Your task to perform on an android device: What is the recent news? Image 0: 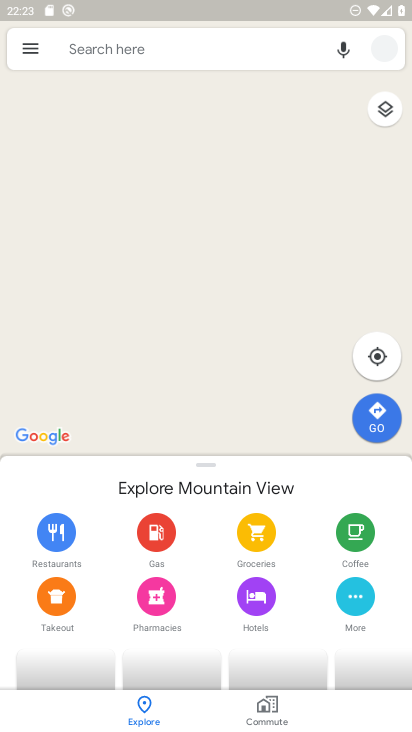
Step 0: press home button
Your task to perform on an android device: What is the recent news? Image 1: 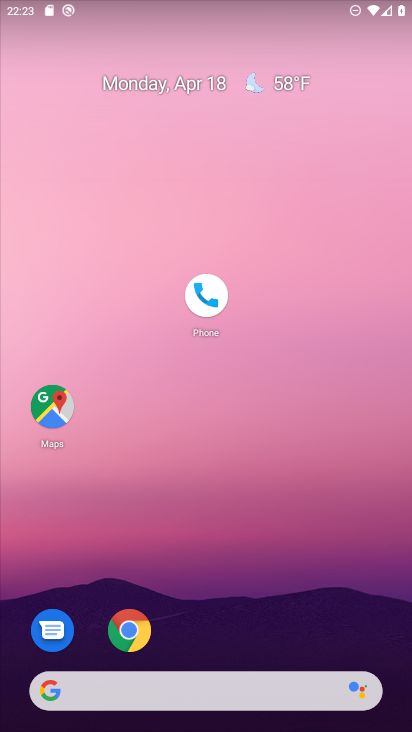
Step 1: drag from (253, 611) to (268, 140)
Your task to perform on an android device: What is the recent news? Image 2: 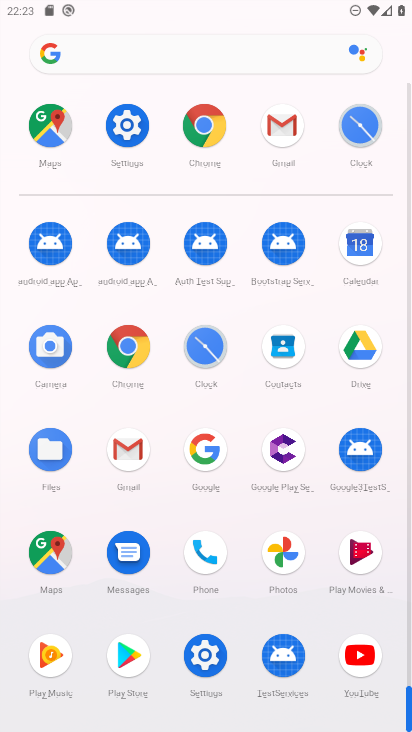
Step 2: click (137, 340)
Your task to perform on an android device: What is the recent news? Image 3: 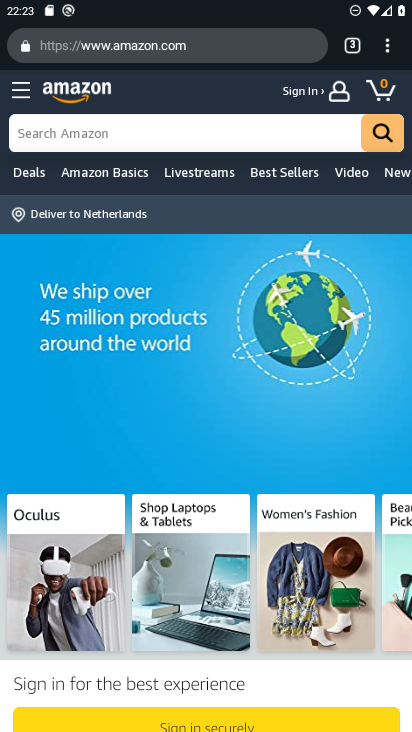
Step 3: click (209, 42)
Your task to perform on an android device: What is the recent news? Image 4: 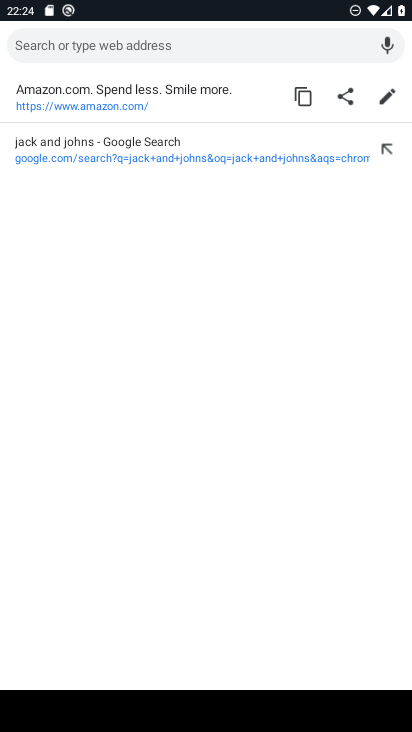
Step 4: type "news"
Your task to perform on an android device: What is the recent news? Image 5: 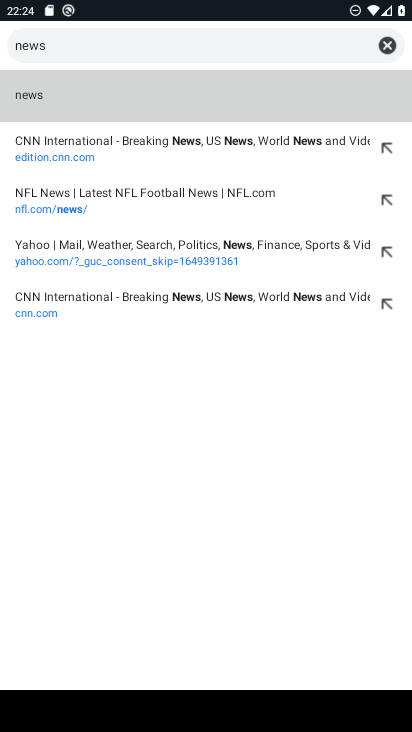
Step 5: click (154, 107)
Your task to perform on an android device: What is the recent news? Image 6: 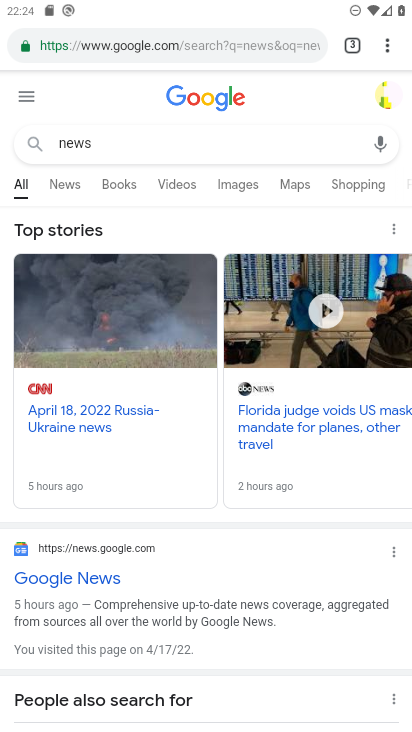
Step 6: click (68, 178)
Your task to perform on an android device: What is the recent news? Image 7: 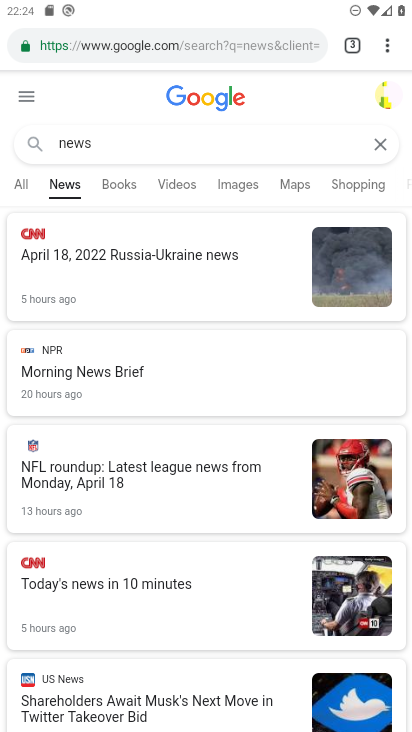
Step 7: task complete